Your task to perform on an android device: check the backup settings in the google photos Image 0: 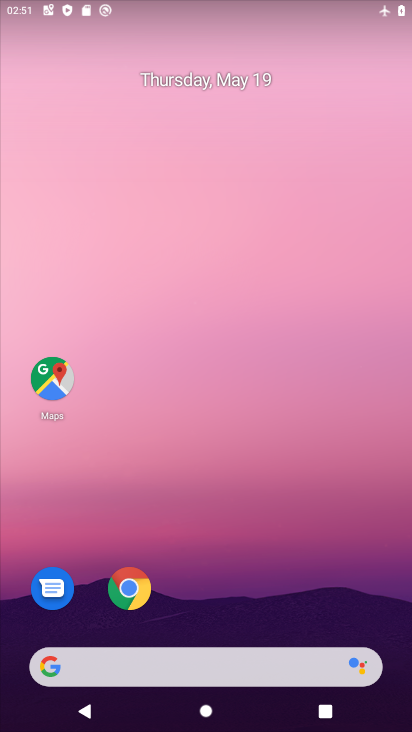
Step 0: drag from (240, 507) to (266, 51)
Your task to perform on an android device: check the backup settings in the google photos Image 1: 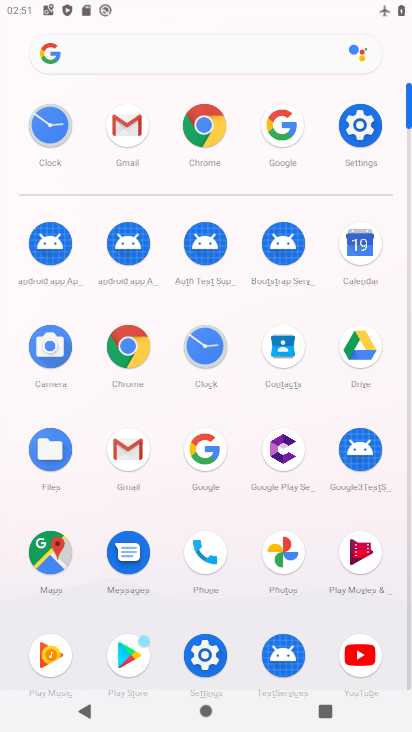
Step 1: click (280, 560)
Your task to perform on an android device: check the backup settings in the google photos Image 2: 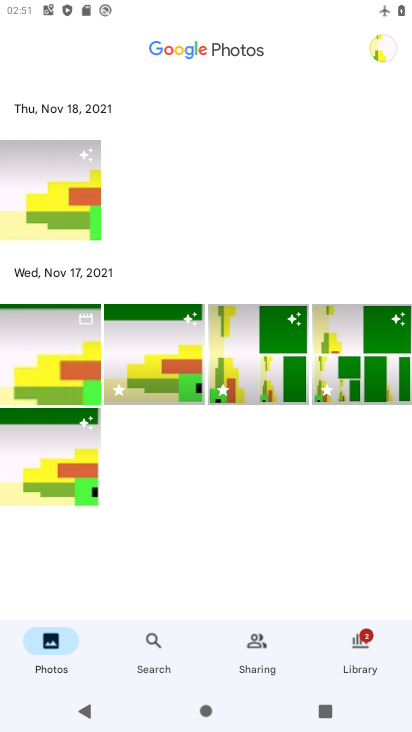
Step 2: click (382, 48)
Your task to perform on an android device: check the backup settings in the google photos Image 3: 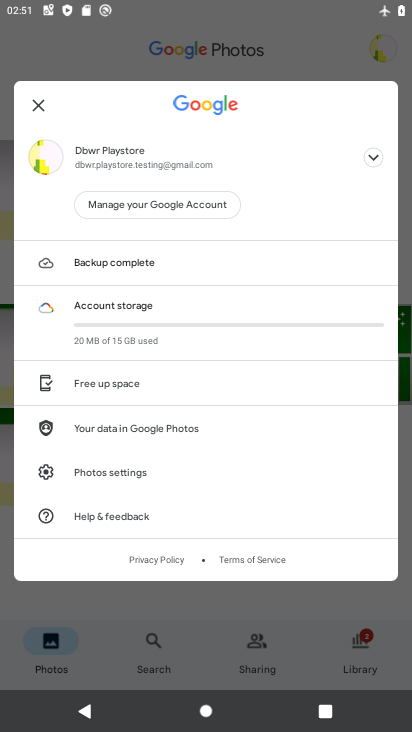
Step 3: click (137, 475)
Your task to perform on an android device: check the backup settings in the google photos Image 4: 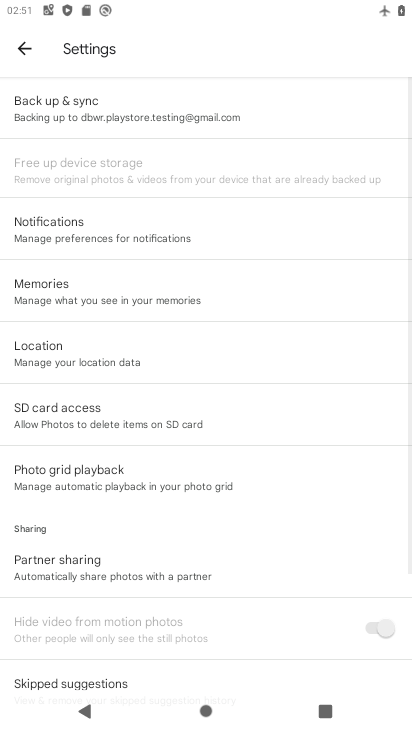
Step 4: click (99, 114)
Your task to perform on an android device: check the backup settings in the google photos Image 5: 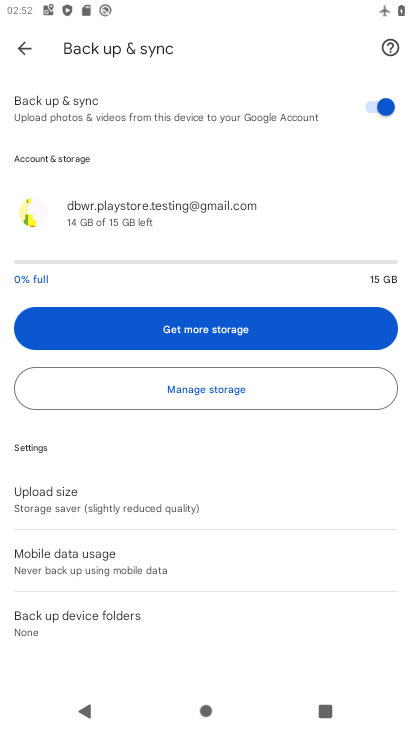
Step 5: task complete